Your task to perform on an android device: Open Amazon Image 0: 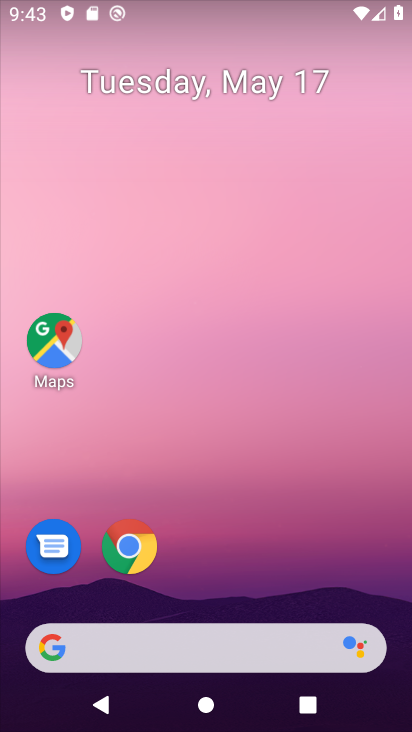
Step 0: click (130, 530)
Your task to perform on an android device: Open Amazon Image 1: 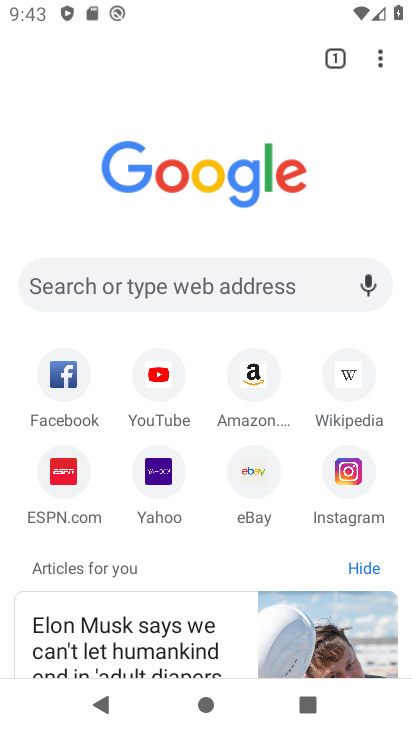
Step 1: click (259, 355)
Your task to perform on an android device: Open Amazon Image 2: 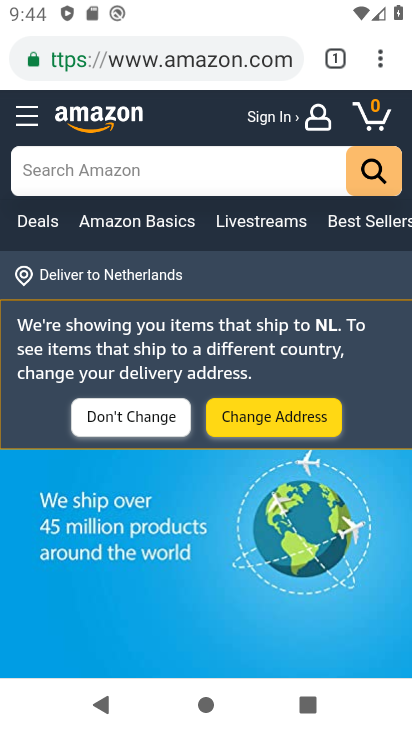
Step 2: task complete